Your task to perform on an android device: toggle location history Image 0: 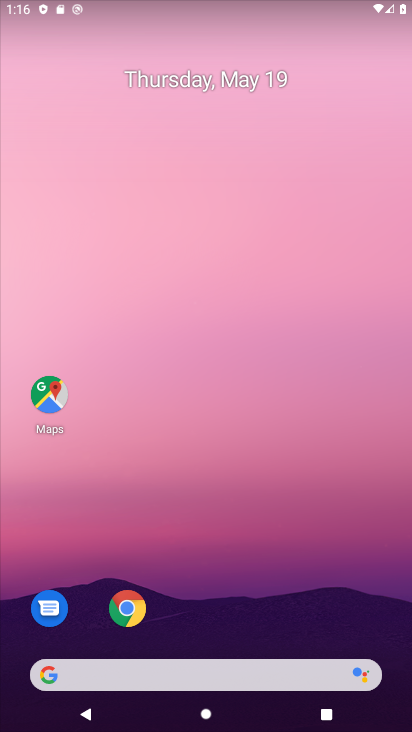
Step 0: drag from (310, 556) to (277, 9)
Your task to perform on an android device: toggle location history Image 1: 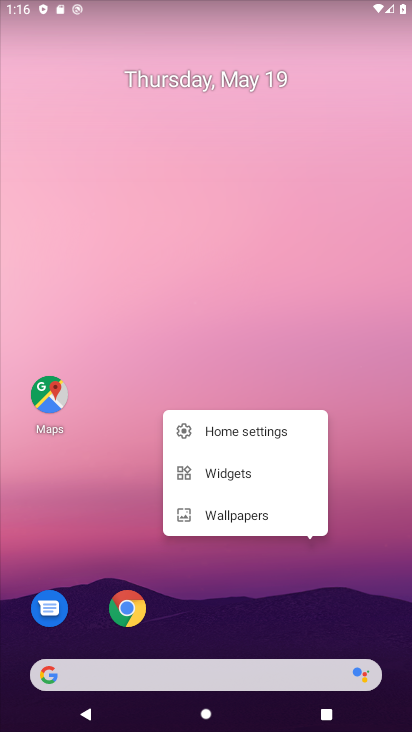
Step 1: click (223, 571)
Your task to perform on an android device: toggle location history Image 2: 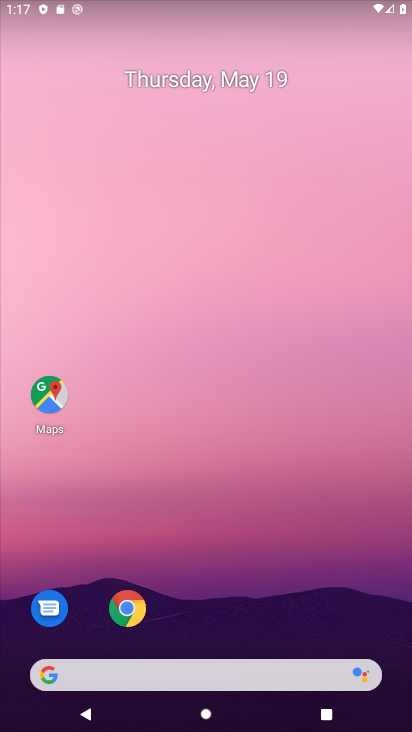
Step 2: drag from (285, 588) to (335, 37)
Your task to perform on an android device: toggle location history Image 3: 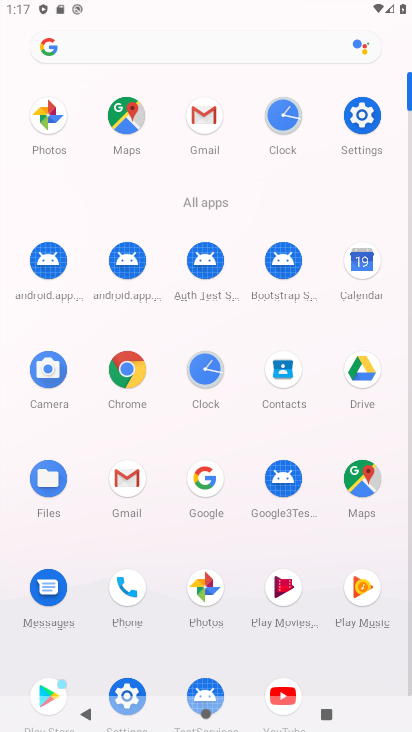
Step 3: click (335, 133)
Your task to perform on an android device: toggle location history Image 4: 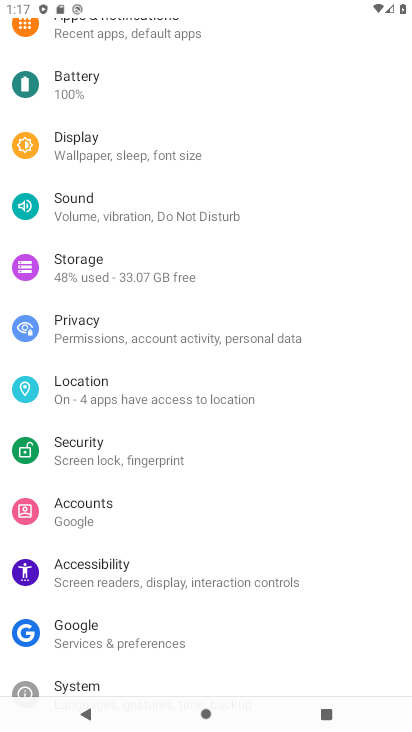
Step 4: click (153, 399)
Your task to perform on an android device: toggle location history Image 5: 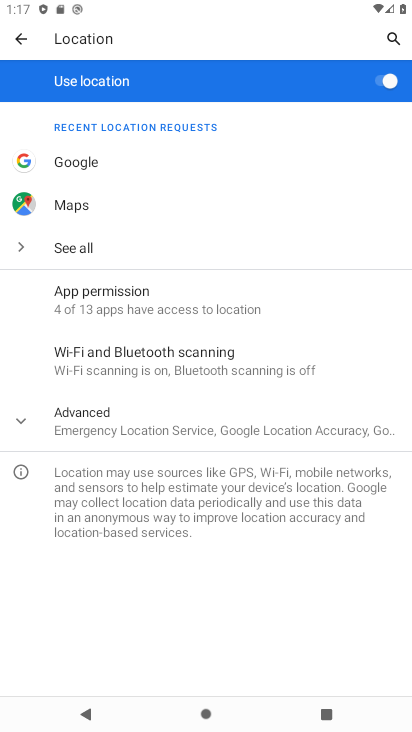
Step 5: click (70, 438)
Your task to perform on an android device: toggle location history Image 6: 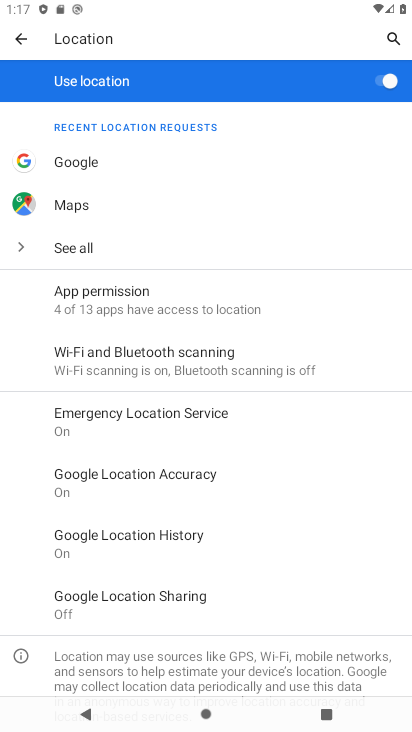
Step 6: click (174, 546)
Your task to perform on an android device: toggle location history Image 7: 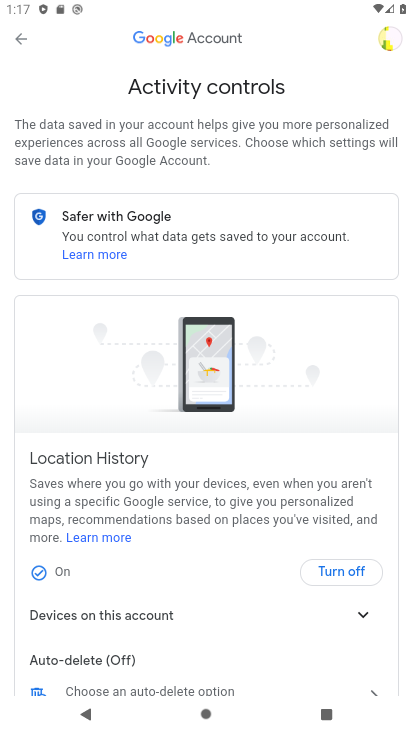
Step 7: click (321, 568)
Your task to perform on an android device: toggle location history Image 8: 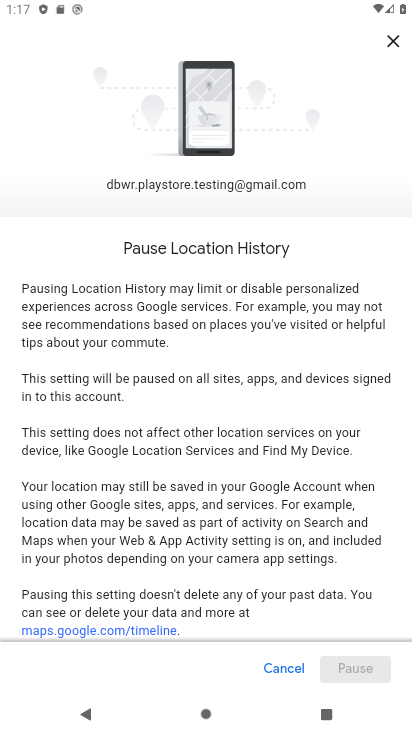
Step 8: drag from (263, 562) to (303, 0)
Your task to perform on an android device: toggle location history Image 9: 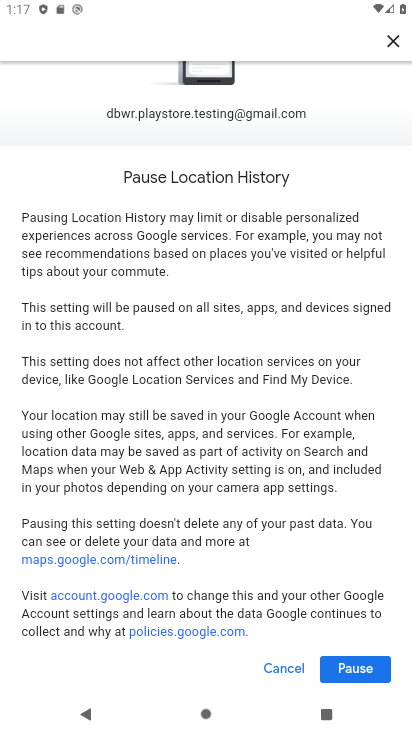
Step 9: click (349, 655)
Your task to perform on an android device: toggle location history Image 10: 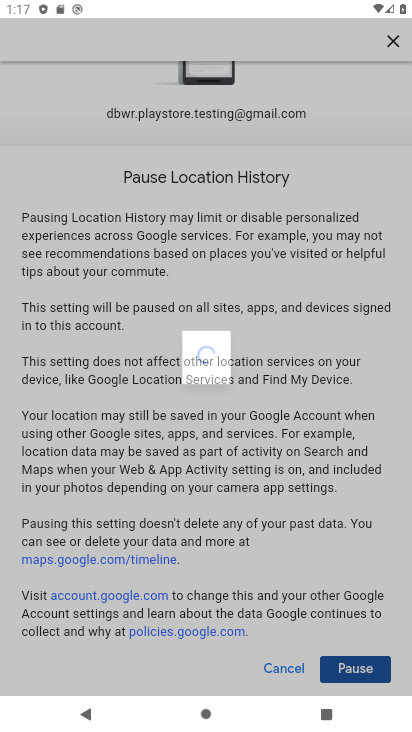
Step 10: task complete